Your task to perform on an android device: Open internet settings Image 0: 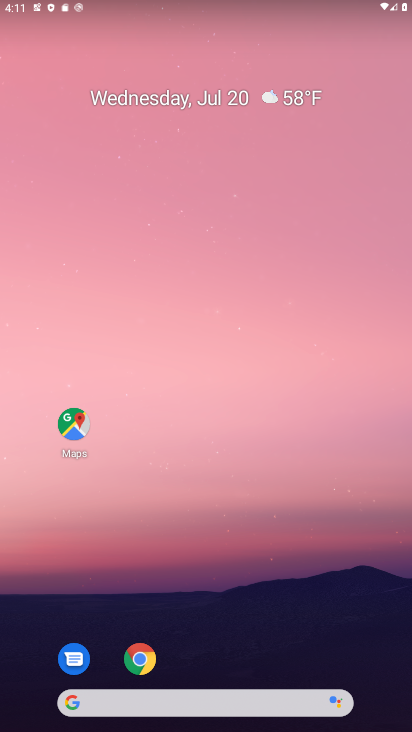
Step 0: click (294, 400)
Your task to perform on an android device: Open internet settings Image 1: 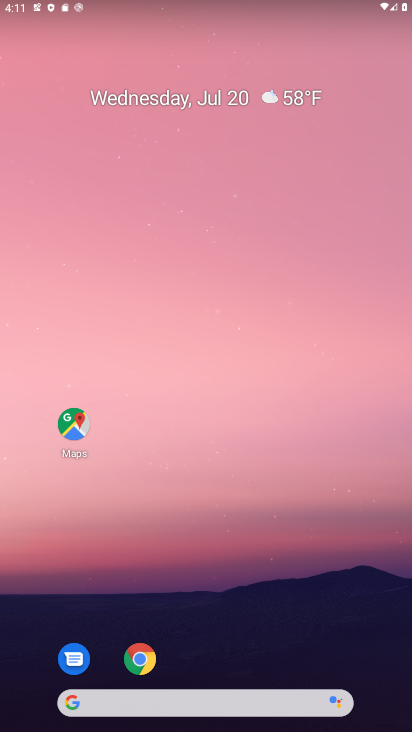
Step 1: click (295, 400)
Your task to perform on an android device: Open internet settings Image 2: 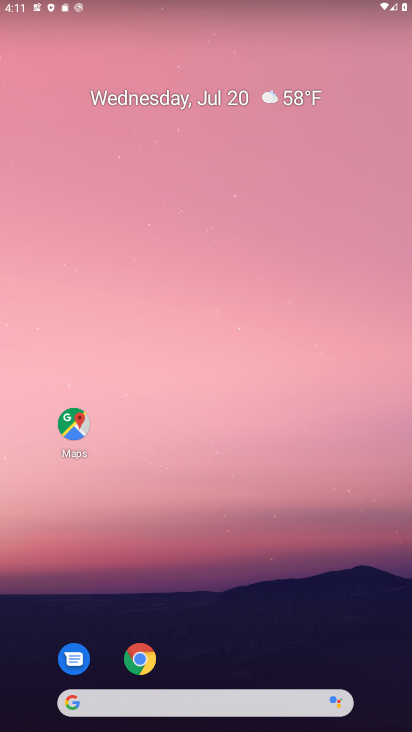
Step 2: drag from (171, 583) to (125, 209)
Your task to perform on an android device: Open internet settings Image 3: 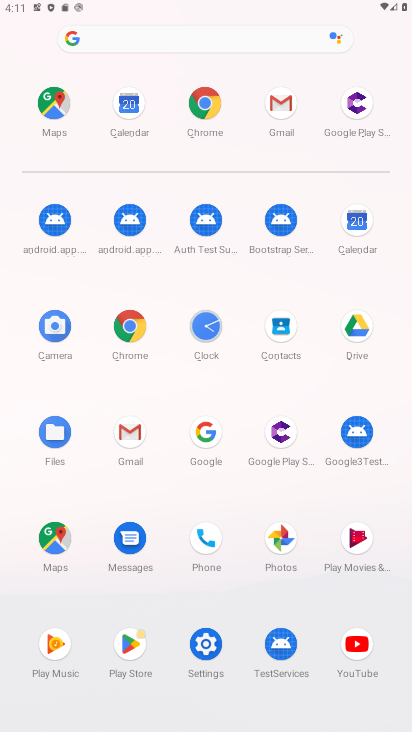
Step 3: click (202, 642)
Your task to perform on an android device: Open internet settings Image 4: 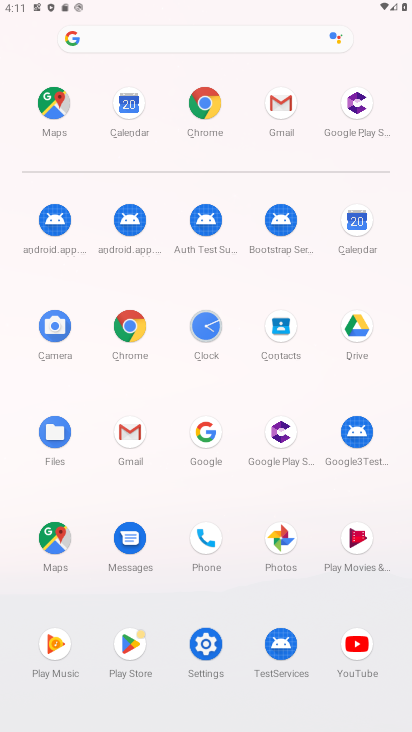
Step 4: click (202, 640)
Your task to perform on an android device: Open internet settings Image 5: 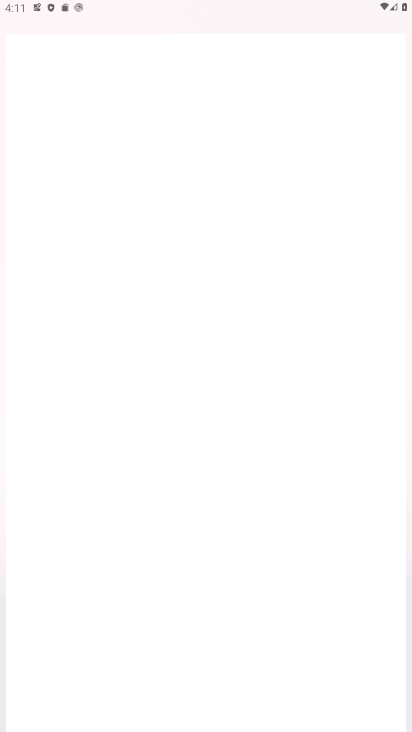
Step 5: click (200, 642)
Your task to perform on an android device: Open internet settings Image 6: 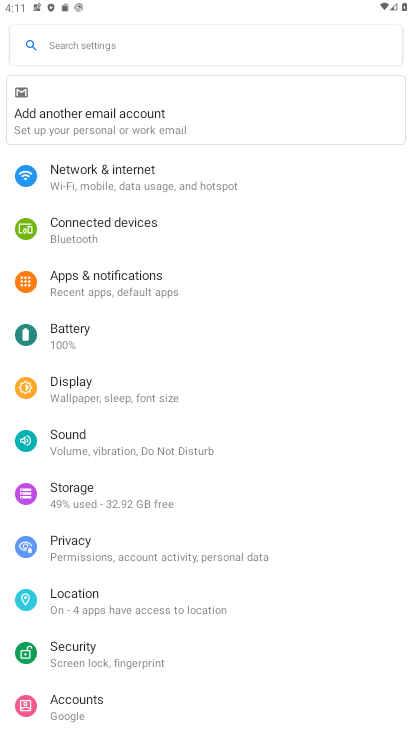
Step 6: click (116, 177)
Your task to perform on an android device: Open internet settings Image 7: 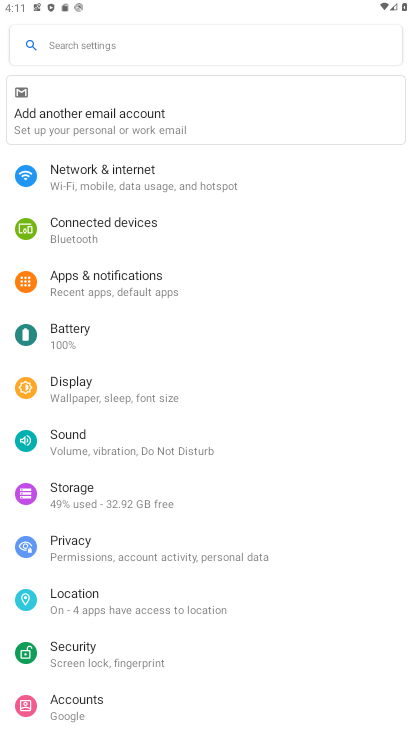
Step 7: click (116, 177)
Your task to perform on an android device: Open internet settings Image 8: 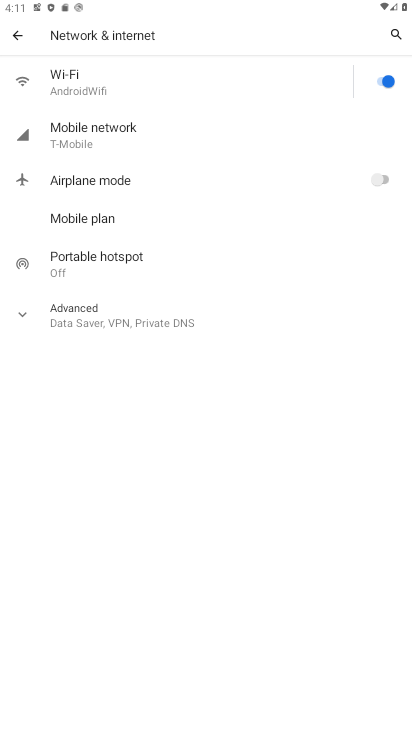
Step 8: task complete